Your task to perform on an android device: turn off location Image 0: 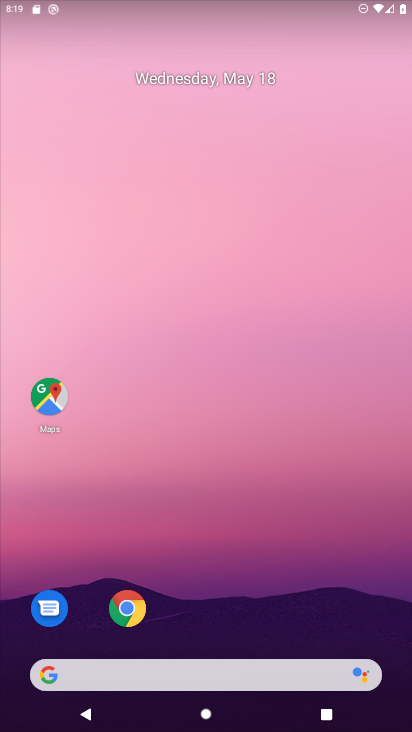
Step 0: drag from (358, 13) to (357, 516)
Your task to perform on an android device: turn off location Image 1: 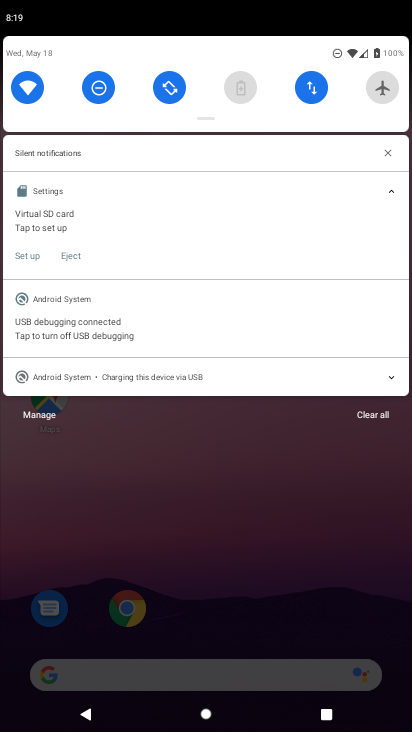
Step 1: drag from (257, 126) to (285, 552)
Your task to perform on an android device: turn off location Image 2: 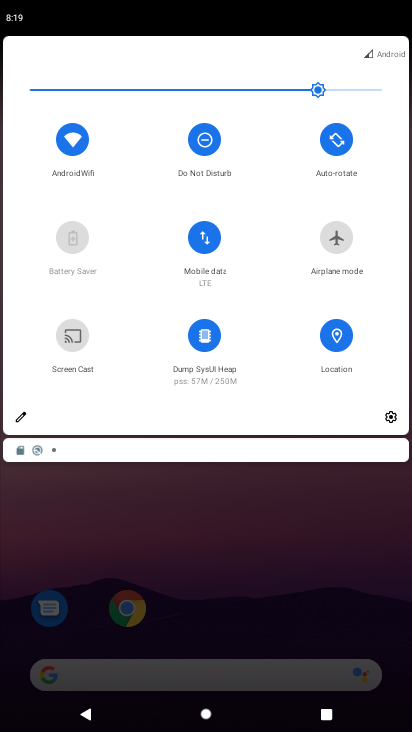
Step 2: click (345, 337)
Your task to perform on an android device: turn off location Image 3: 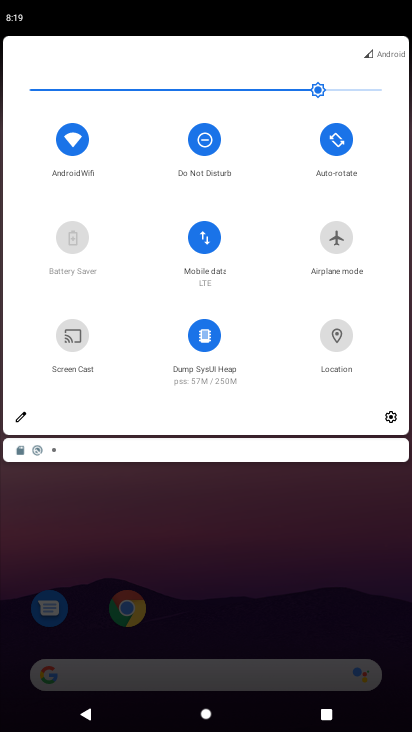
Step 3: task complete